Your task to perform on an android device: Check the weather Image 0: 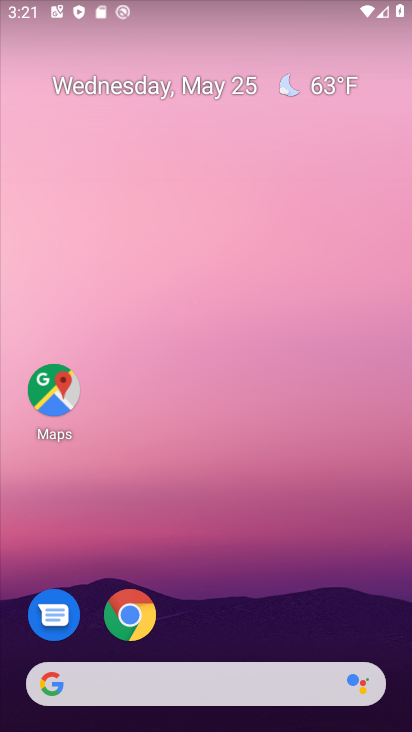
Step 0: drag from (152, 278) to (384, 401)
Your task to perform on an android device: Check the weather Image 1: 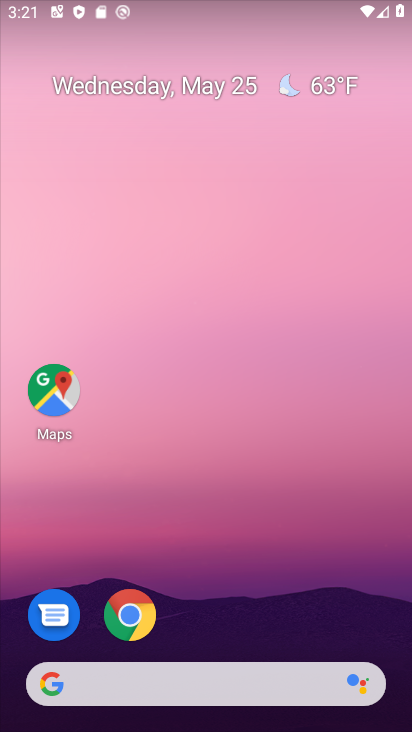
Step 1: click (385, 420)
Your task to perform on an android device: Check the weather Image 2: 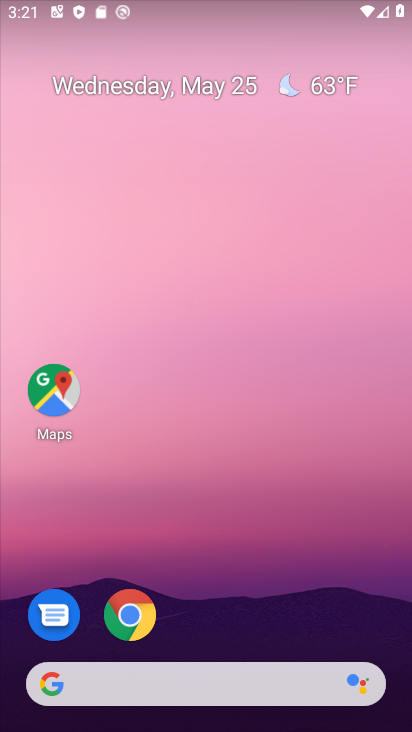
Step 2: drag from (10, 273) to (384, 428)
Your task to perform on an android device: Check the weather Image 3: 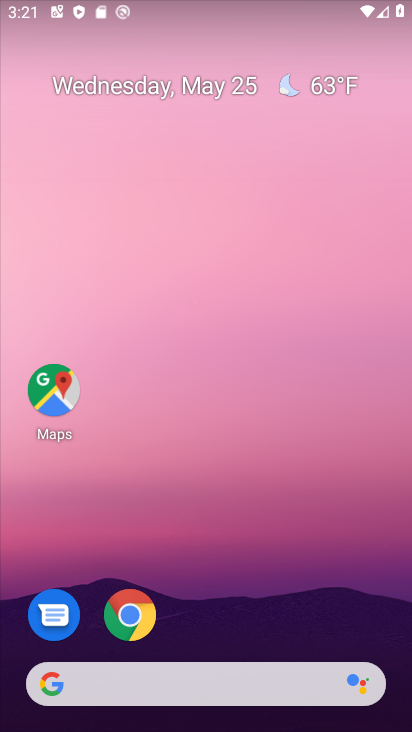
Step 3: drag from (0, 279) to (396, 342)
Your task to perform on an android device: Check the weather Image 4: 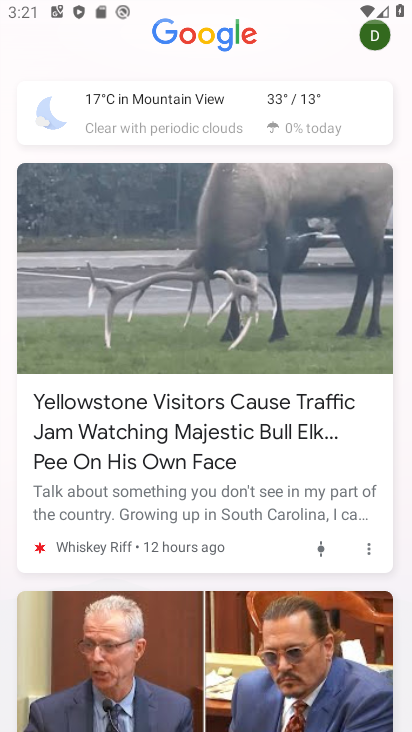
Step 4: drag from (67, 271) to (396, 418)
Your task to perform on an android device: Check the weather Image 5: 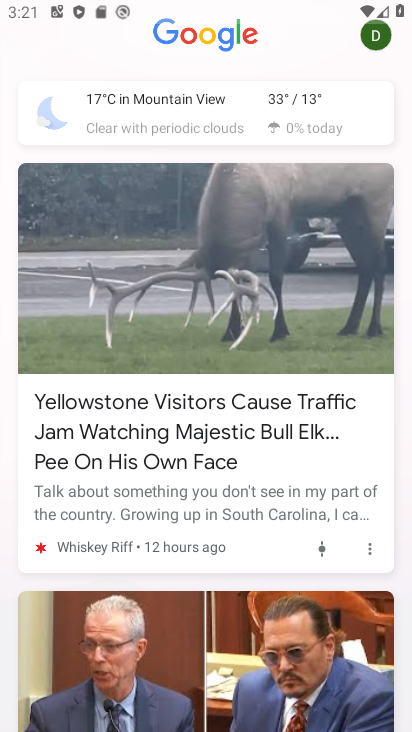
Step 5: click (163, 114)
Your task to perform on an android device: Check the weather Image 6: 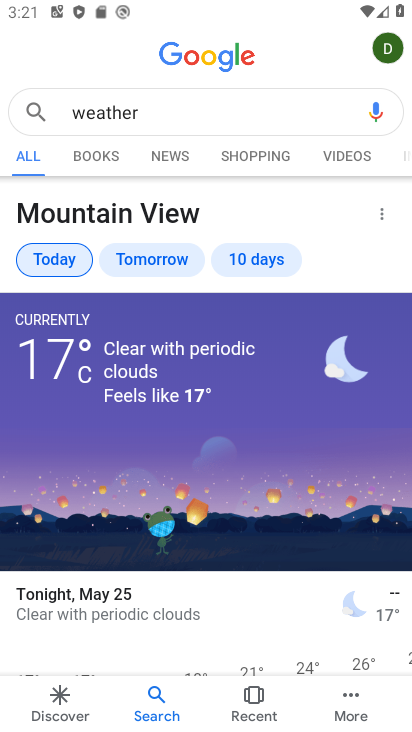
Step 6: click (164, 106)
Your task to perform on an android device: Check the weather Image 7: 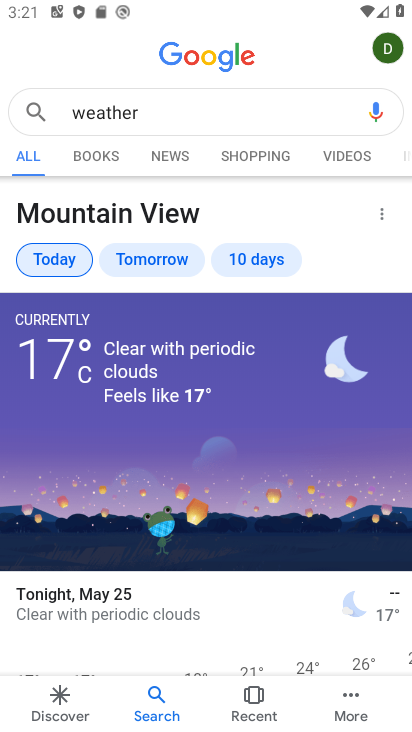
Step 7: click (164, 106)
Your task to perform on an android device: Check the weather Image 8: 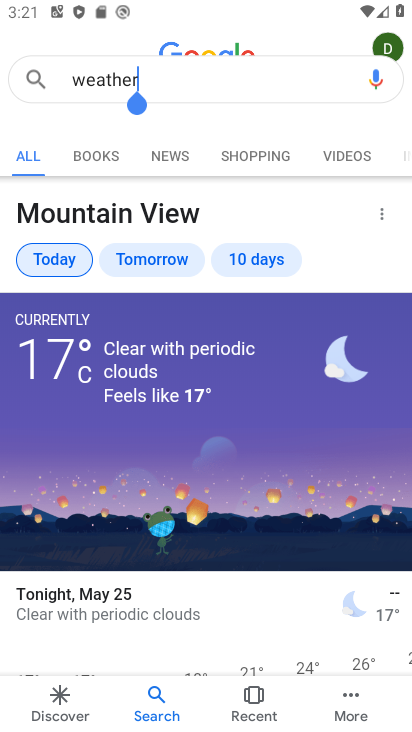
Step 8: click (174, 106)
Your task to perform on an android device: Check the weather Image 9: 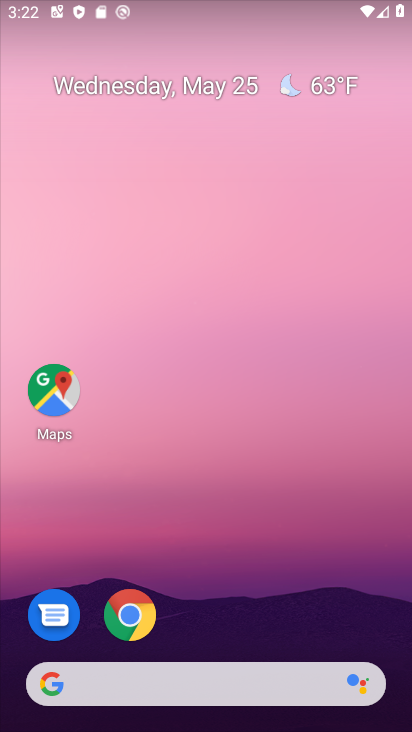
Step 9: task complete